Your task to perform on an android device: check data usage Image 0: 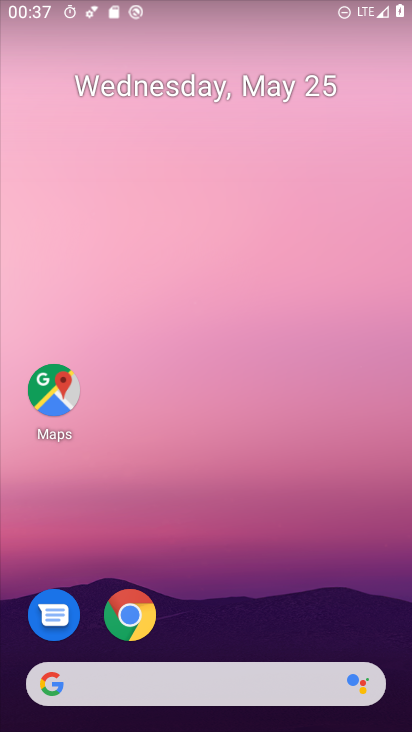
Step 0: press home button
Your task to perform on an android device: check data usage Image 1: 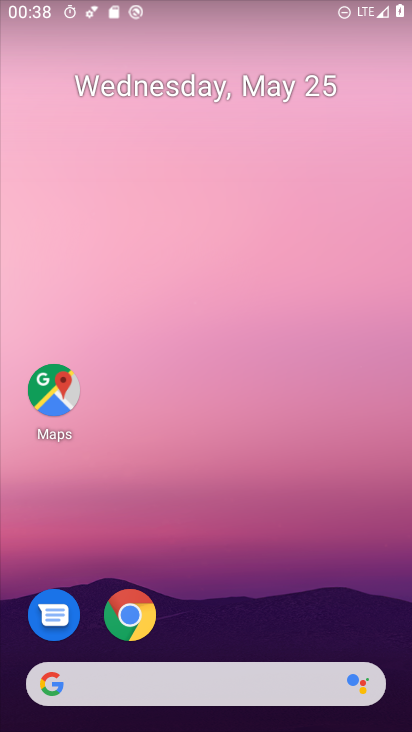
Step 1: drag from (228, 706) to (368, 0)
Your task to perform on an android device: check data usage Image 2: 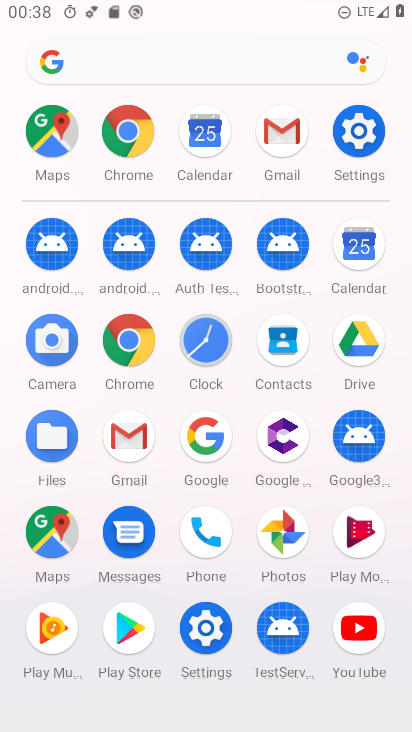
Step 2: click (349, 152)
Your task to perform on an android device: check data usage Image 3: 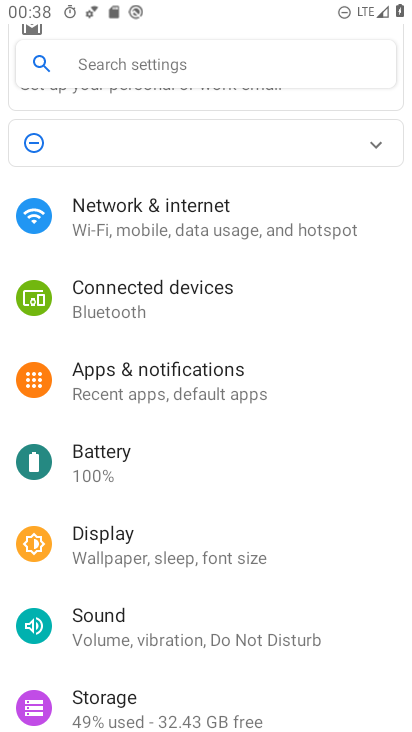
Step 3: click (167, 62)
Your task to perform on an android device: check data usage Image 4: 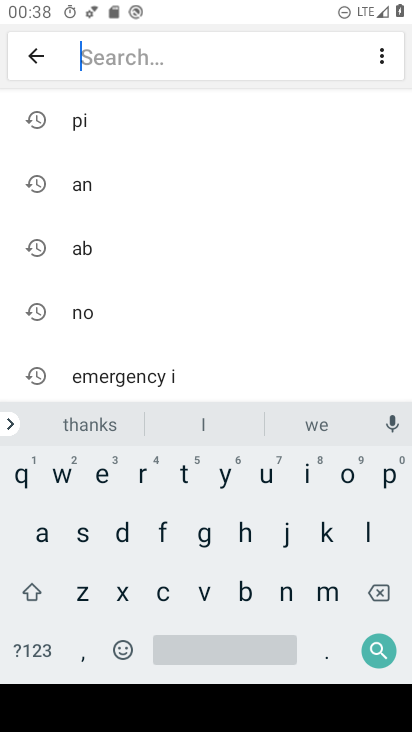
Step 4: click (119, 539)
Your task to perform on an android device: check data usage Image 5: 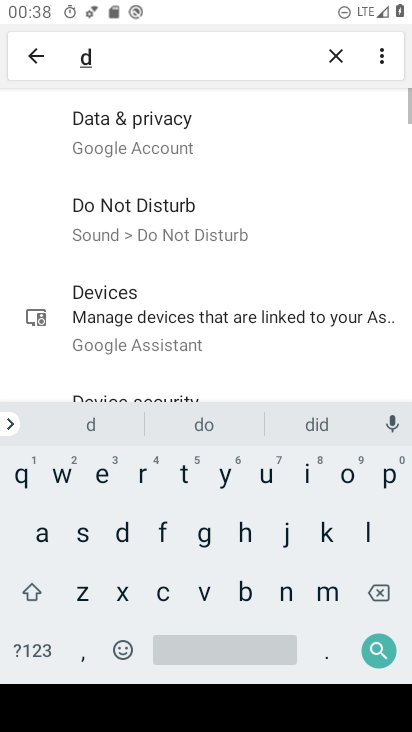
Step 5: click (36, 531)
Your task to perform on an android device: check data usage Image 6: 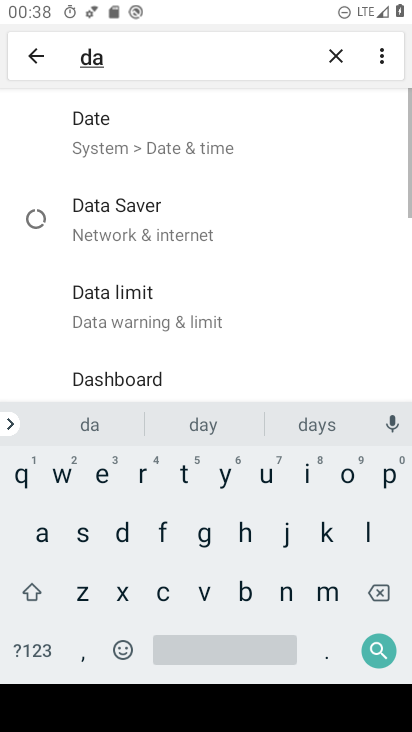
Step 6: click (178, 481)
Your task to perform on an android device: check data usage Image 7: 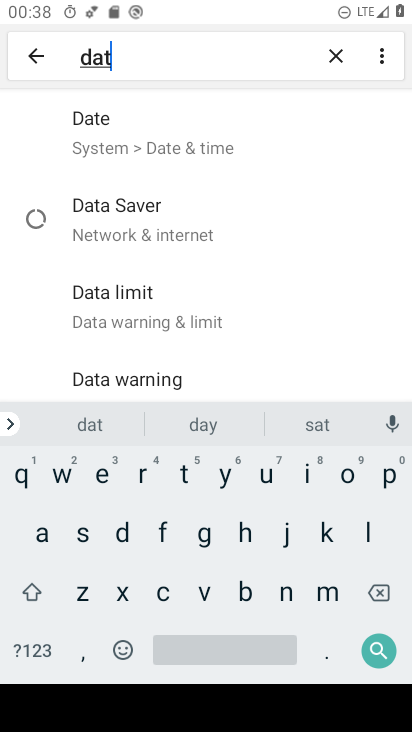
Step 7: click (42, 530)
Your task to perform on an android device: check data usage Image 8: 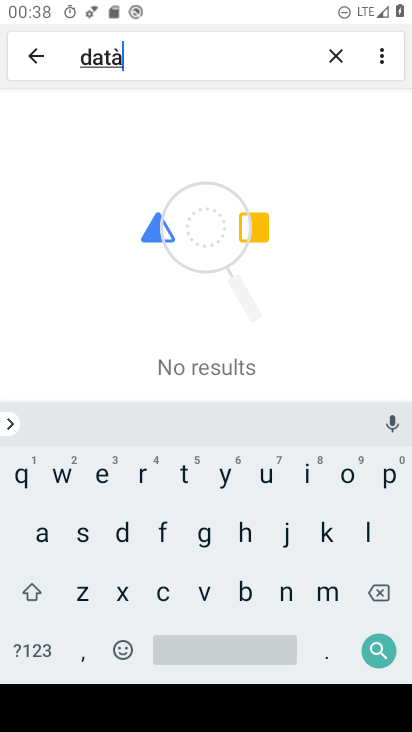
Step 8: click (382, 595)
Your task to perform on an android device: check data usage Image 9: 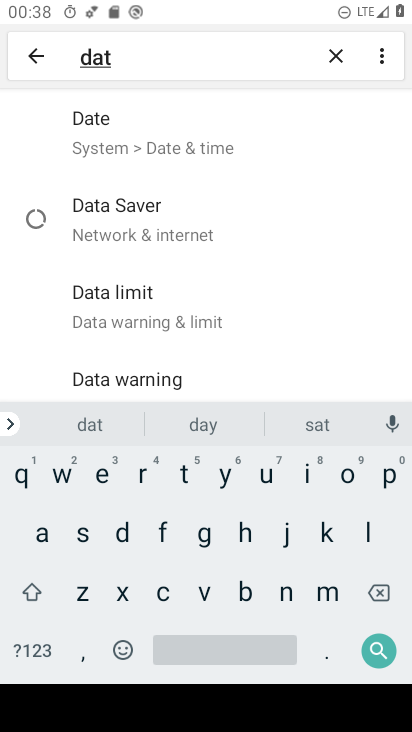
Step 9: click (39, 535)
Your task to perform on an android device: check data usage Image 10: 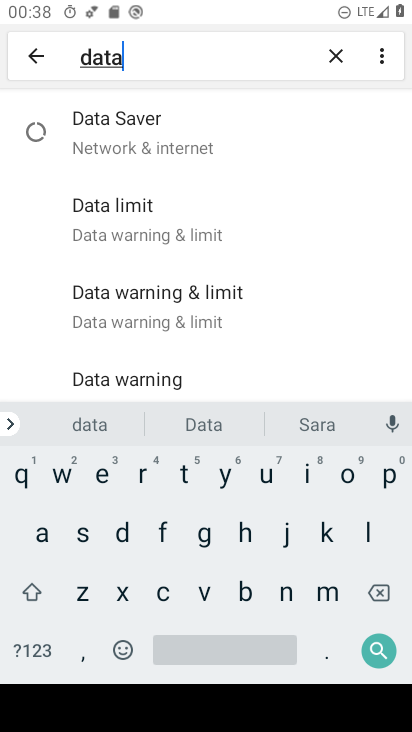
Step 10: click (214, 649)
Your task to perform on an android device: check data usage Image 11: 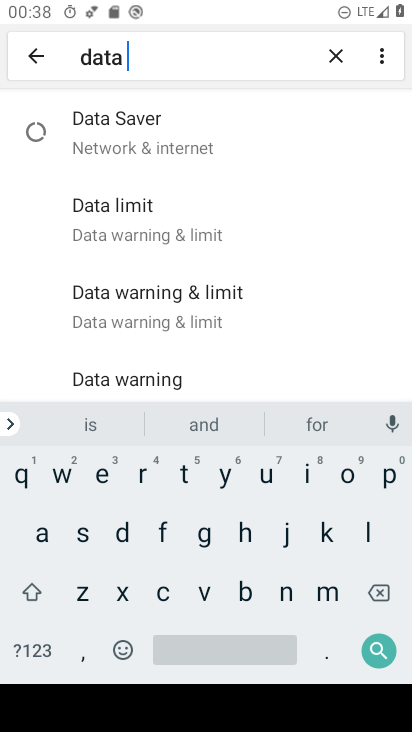
Step 11: click (267, 470)
Your task to perform on an android device: check data usage Image 12: 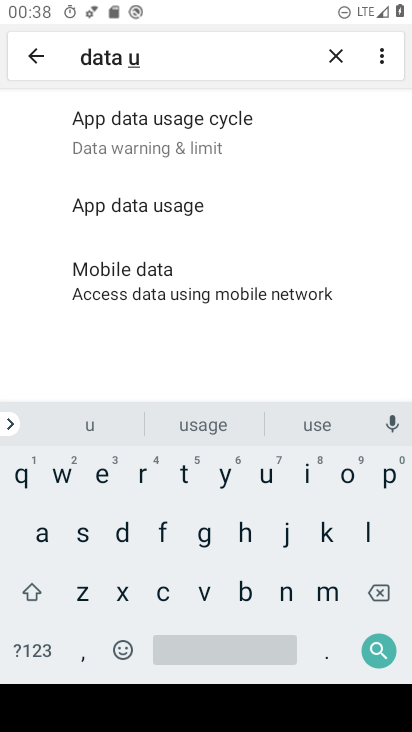
Step 12: click (178, 212)
Your task to perform on an android device: check data usage Image 13: 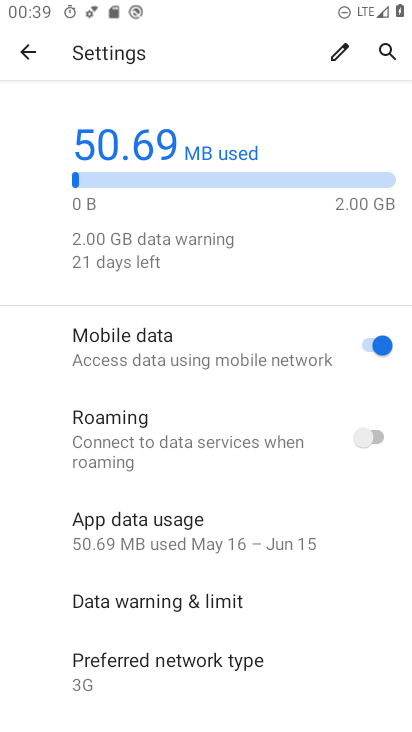
Step 13: task complete